Your task to perform on an android device: Go to settings Image 0: 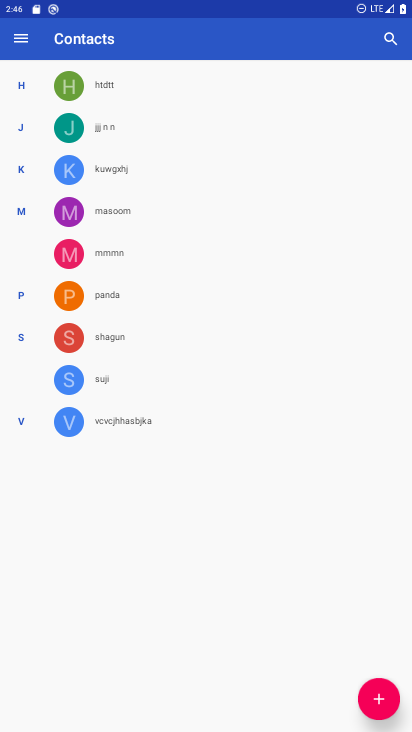
Step 0: press home button
Your task to perform on an android device: Go to settings Image 1: 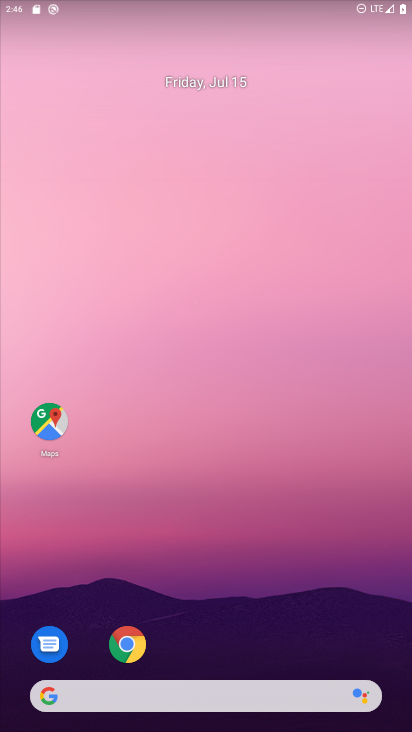
Step 1: drag from (20, 594) to (278, 70)
Your task to perform on an android device: Go to settings Image 2: 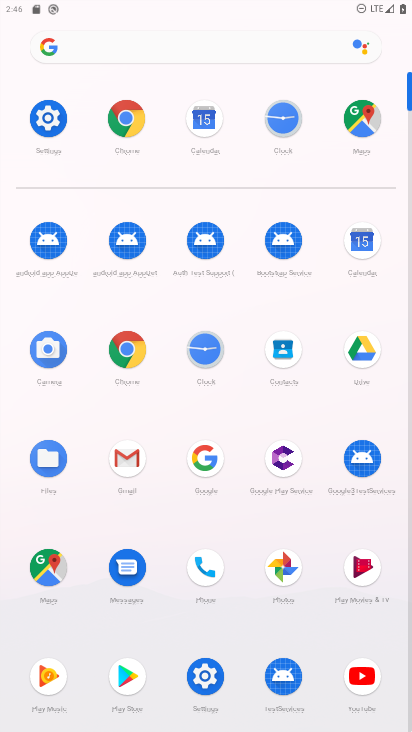
Step 2: click (45, 119)
Your task to perform on an android device: Go to settings Image 3: 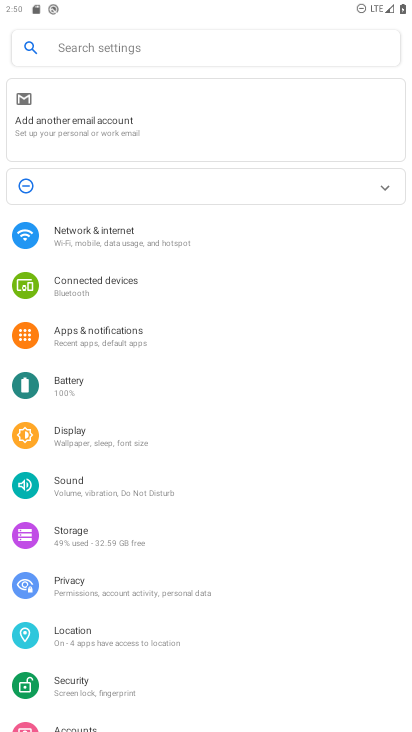
Step 3: task complete